Your task to perform on an android device: find which apps use the phone's location Image 0: 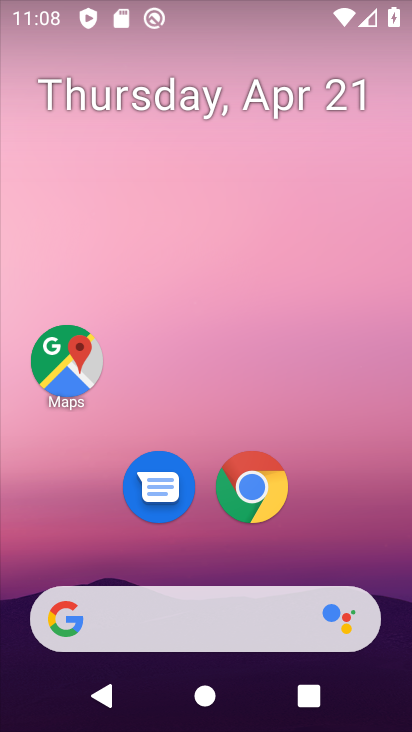
Step 0: drag from (162, 355) to (246, 41)
Your task to perform on an android device: find which apps use the phone's location Image 1: 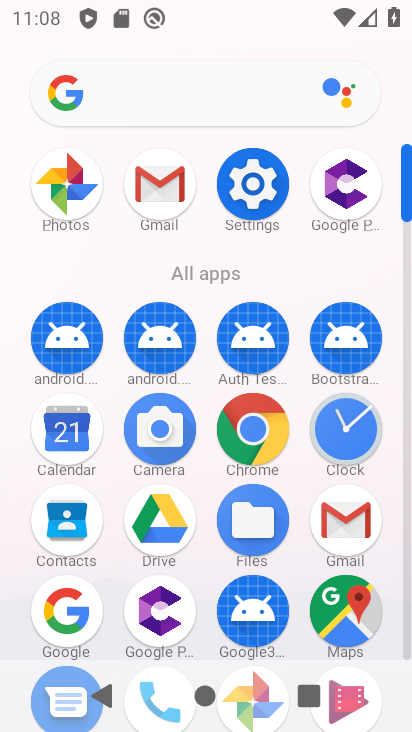
Step 1: drag from (195, 539) to (252, 324)
Your task to perform on an android device: find which apps use the phone's location Image 2: 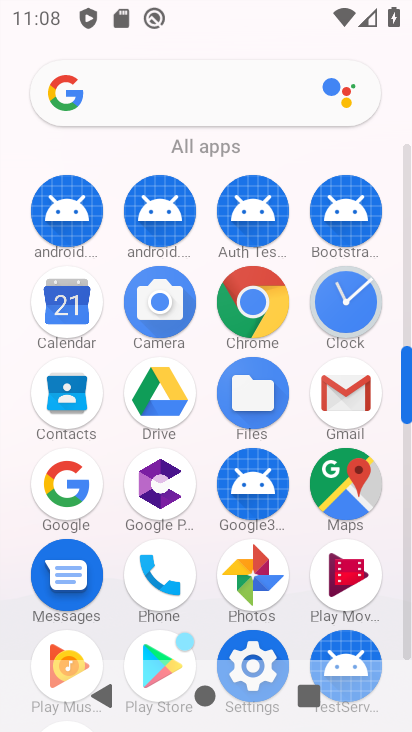
Step 2: click (258, 651)
Your task to perform on an android device: find which apps use the phone's location Image 3: 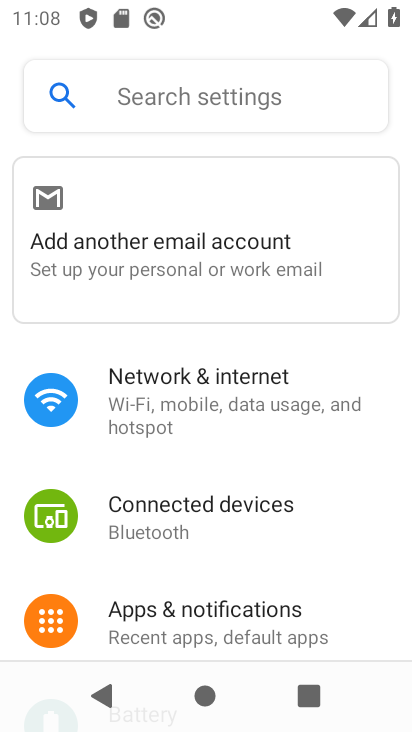
Step 3: drag from (153, 587) to (290, 125)
Your task to perform on an android device: find which apps use the phone's location Image 4: 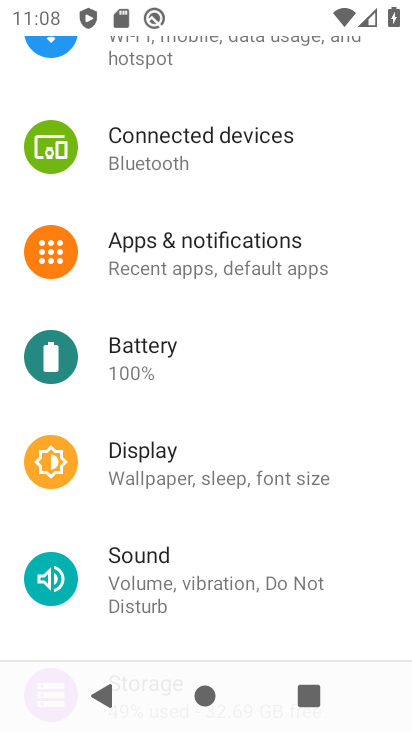
Step 4: drag from (230, 522) to (317, 192)
Your task to perform on an android device: find which apps use the phone's location Image 5: 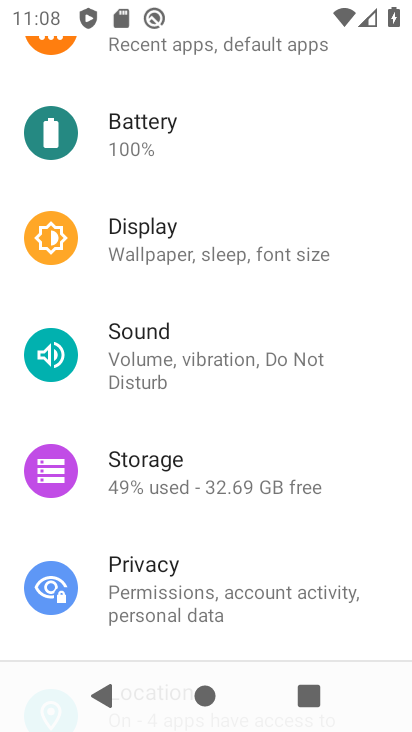
Step 5: drag from (176, 584) to (272, 194)
Your task to perform on an android device: find which apps use the phone's location Image 6: 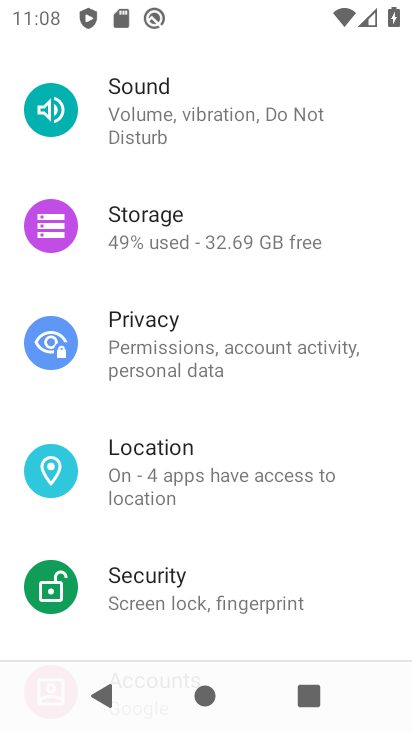
Step 6: click (151, 458)
Your task to perform on an android device: find which apps use the phone's location Image 7: 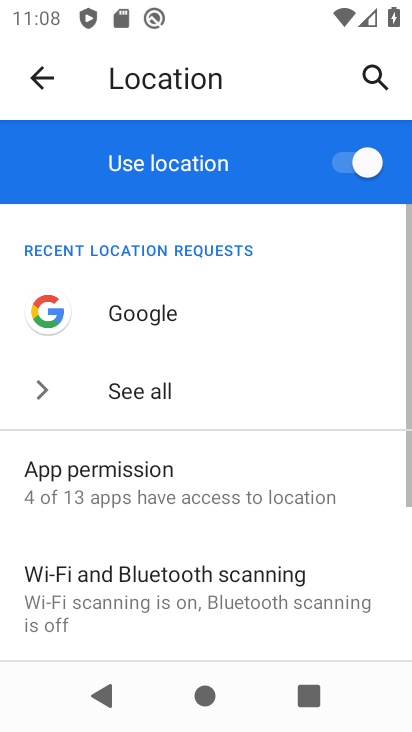
Step 7: click (159, 501)
Your task to perform on an android device: find which apps use the phone's location Image 8: 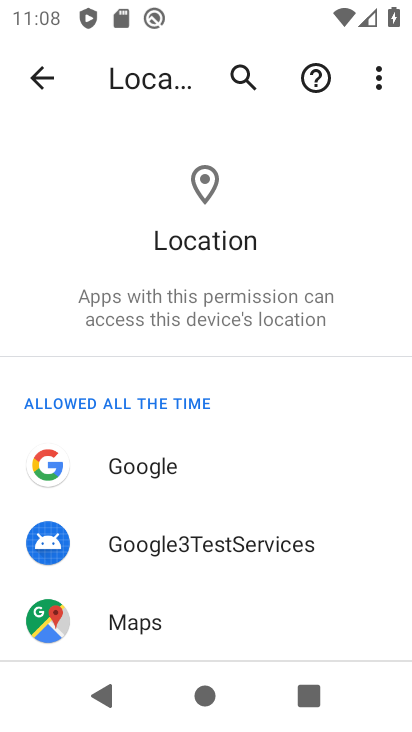
Step 8: task complete